Your task to perform on an android device: turn on data saver in the chrome app Image 0: 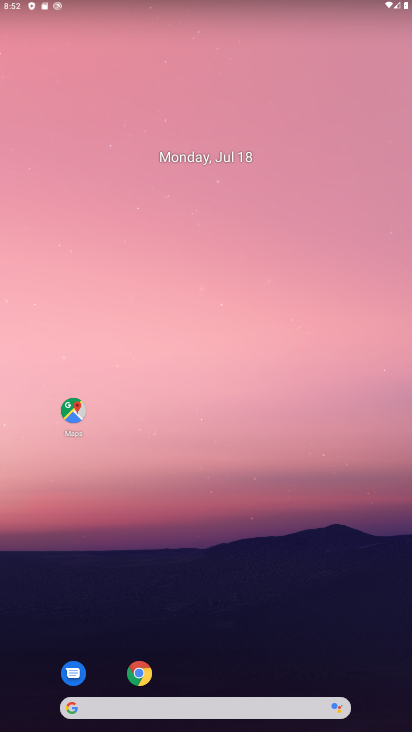
Step 0: click (152, 683)
Your task to perform on an android device: turn on data saver in the chrome app Image 1: 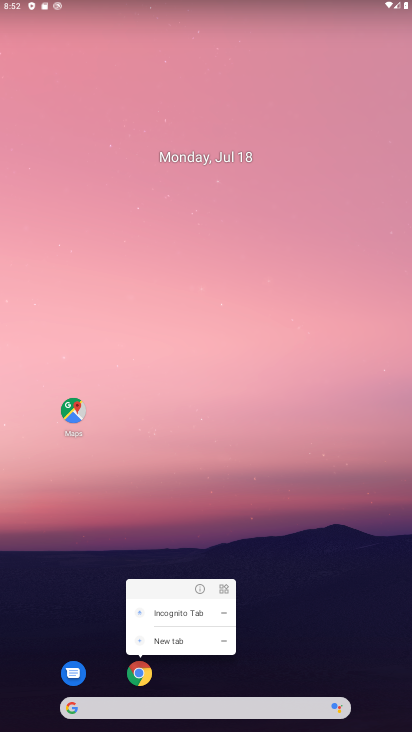
Step 1: click (151, 679)
Your task to perform on an android device: turn on data saver in the chrome app Image 2: 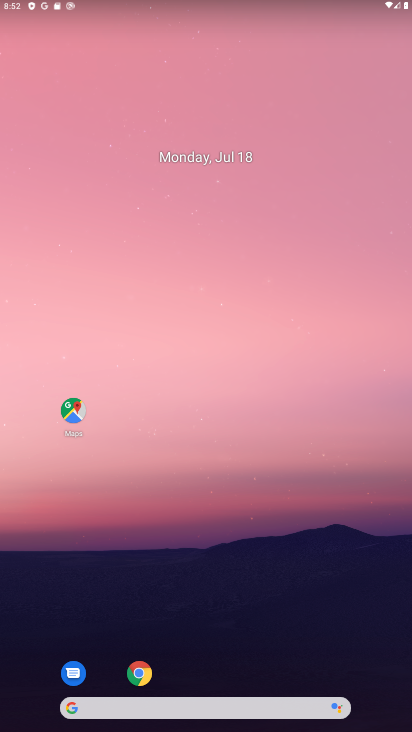
Step 2: click (139, 683)
Your task to perform on an android device: turn on data saver in the chrome app Image 3: 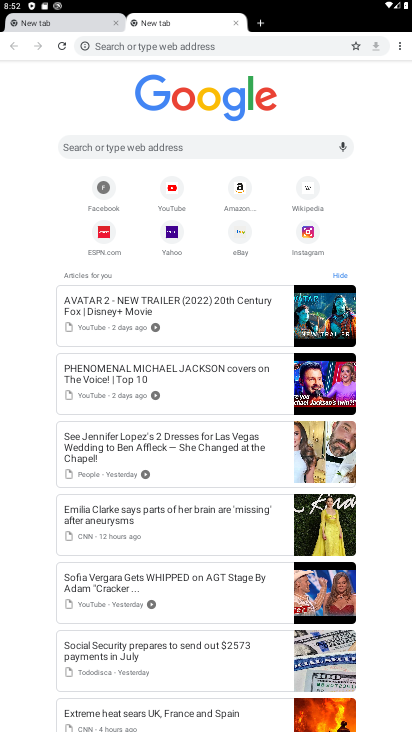
Step 3: drag from (402, 44) to (331, 212)
Your task to perform on an android device: turn on data saver in the chrome app Image 4: 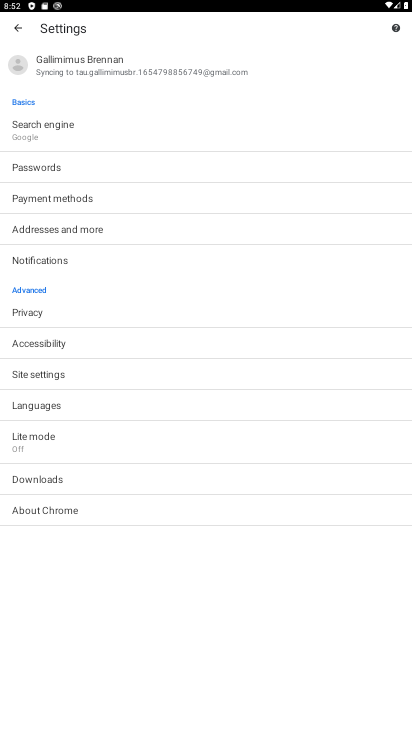
Step 4: click (80, 443)
Your task to perform on an android device: turn on data saver in the chrome app Image 5: 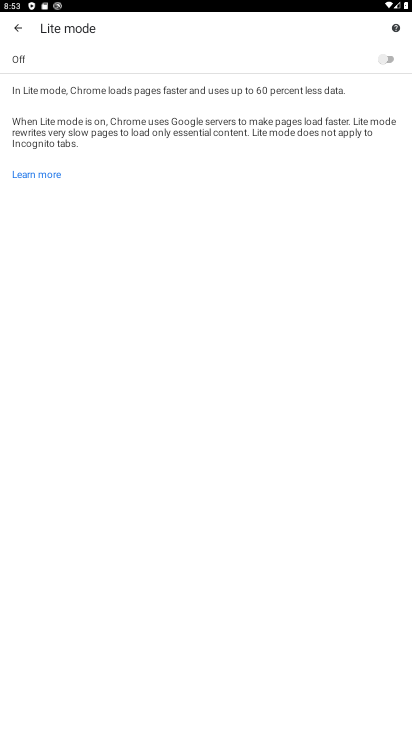
Step 5: click (394, 52)
Your task to perform on an android device: turn on data saver in the chrome app Image 6: 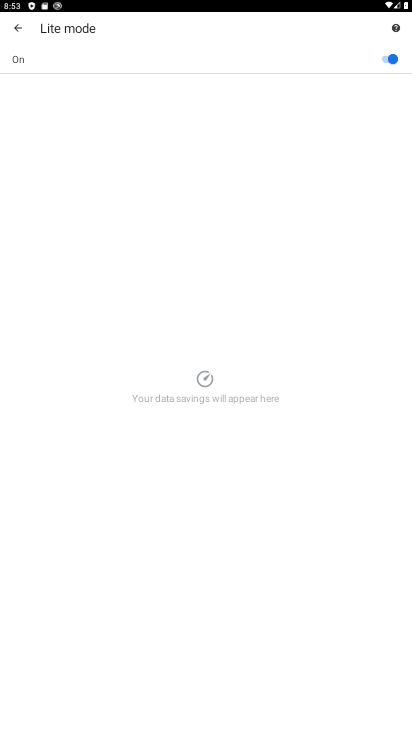
Step 6: task complete